Your task to perform on an android device: change the clock display to analog Image 0: 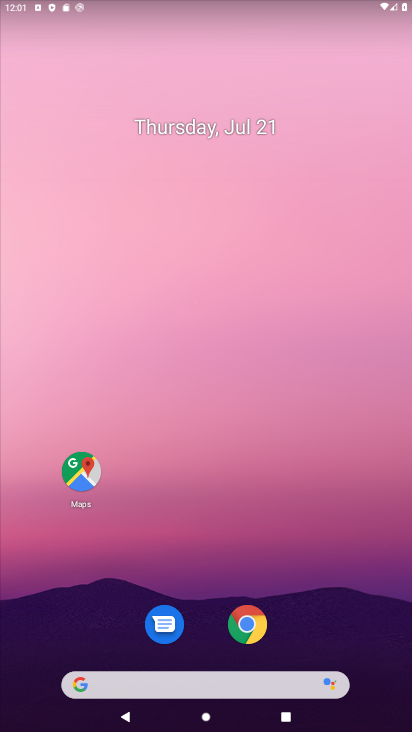
Step 0: drag from (197, 607) to (231, 137)
Your task to perform on an android device: change the clock display to analog Image 1: 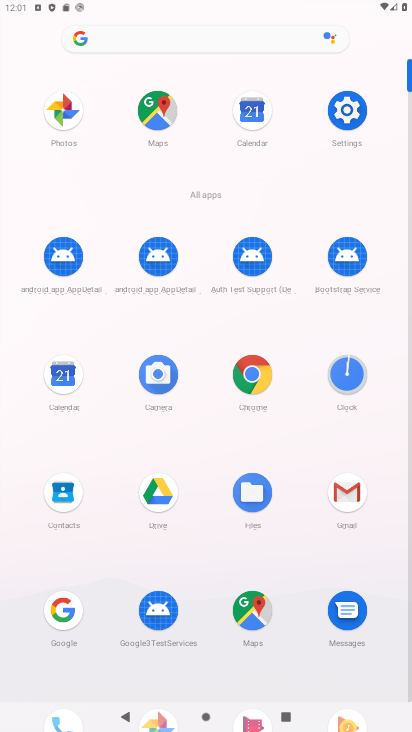
Step 1: click (363, 380)
Your task to perform on an android device: change the clock display to analog Image 2: 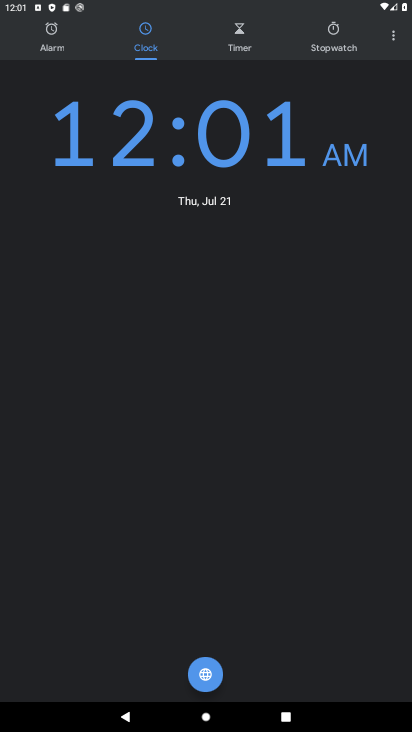
Step 2: click (397, 25)
Your task to perform on an android device: change the clock display to analog Image 3: 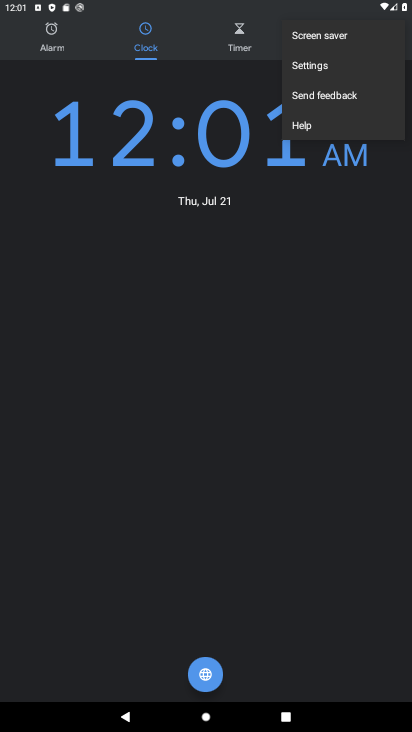
Step 3: click (341, 69)
Your task to perform on an android device: change the clock display to analog Image 4: 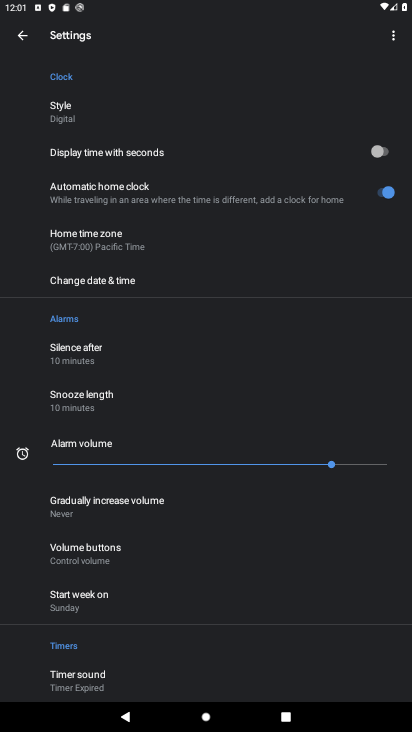
Step 4: click (79, 113)
Your task to perform on an android device: change the clock display to analog Image 5: 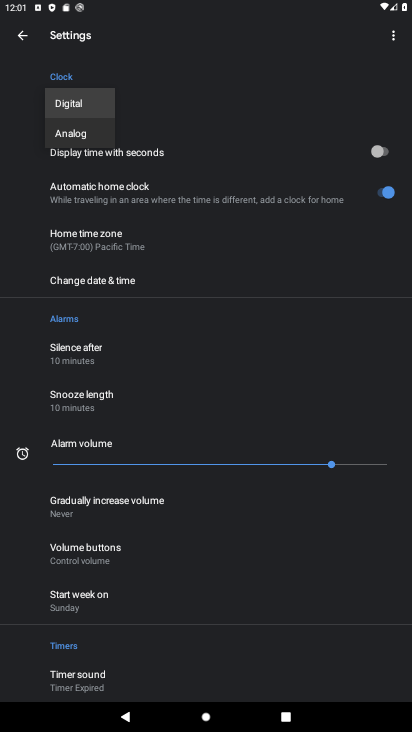
Step 5: click (97, 134)
Your task to perform on an android device: change the clock display to analog Image 6: 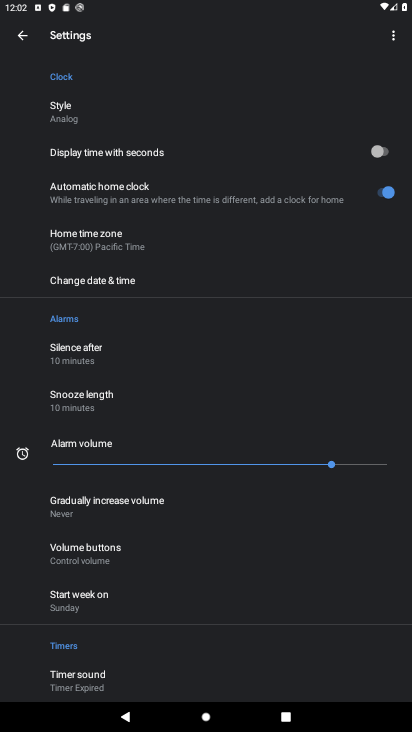
Step 6: task complete